Your task to perform on an android device: open app "NewsBreak: Local News & Alerts" Image 0: 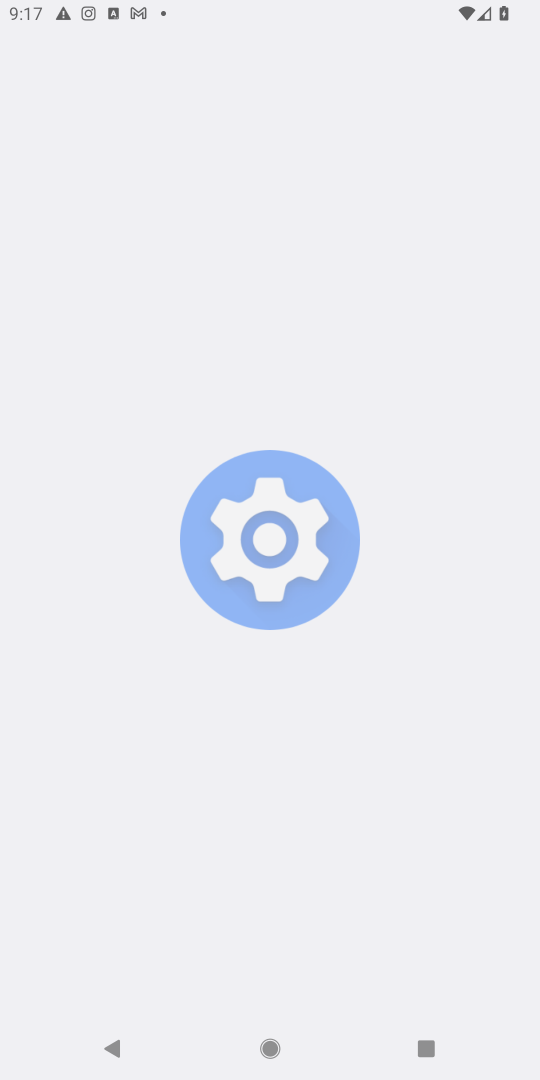
Step 0: press home button
Your task to perform on an android device: open app "NewsBreak: Local News & Alerts" Image 1: 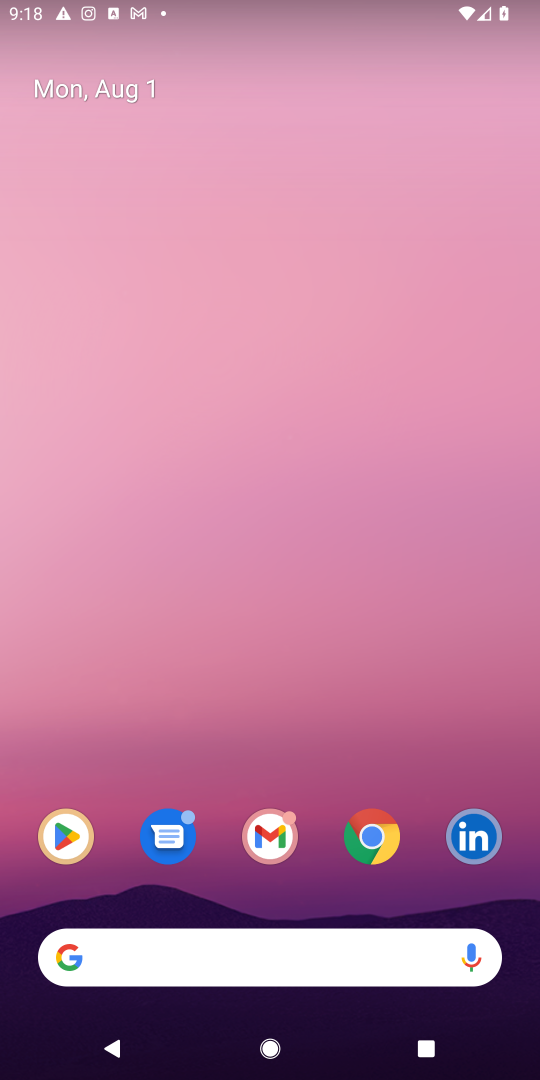
Step 1: click (66, 837)
Your task to perform on an android device: open app "NewsBreak: Local News & Alerts" Image 2: 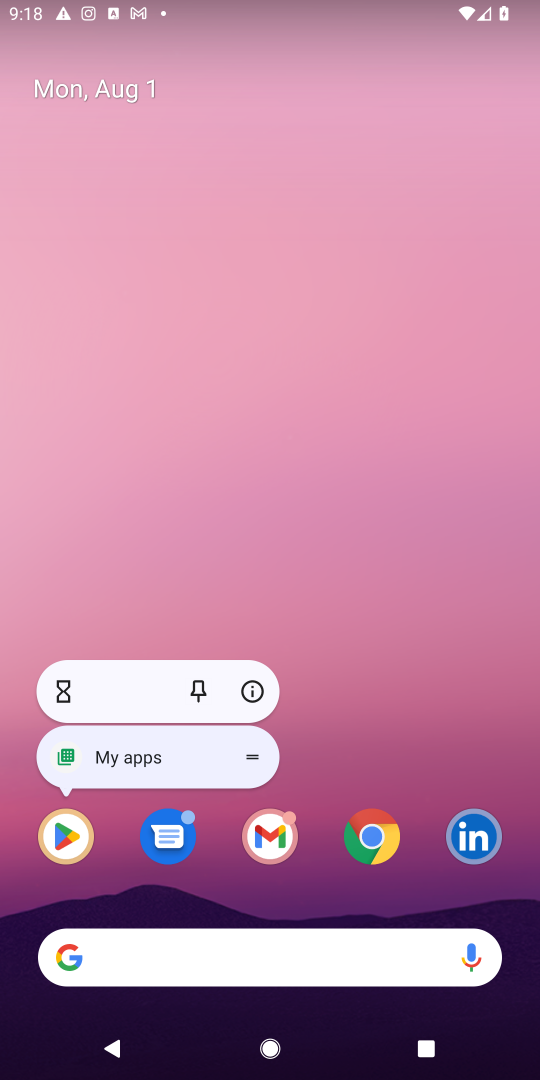
Step 2: click (66, 837)
Your task to perform on an android device: open app "NewsBreak: Local News & Alerts" Image 3: 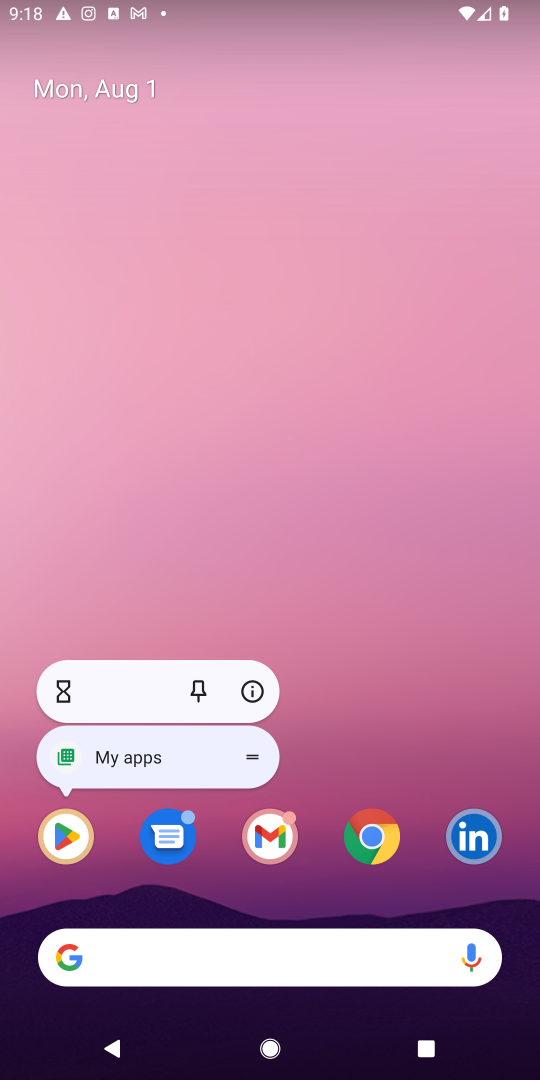
Step 3: click (66, 837)
Your task to perform on an android device: open app "NewsBreak: Local News & Alerts" Image 4: 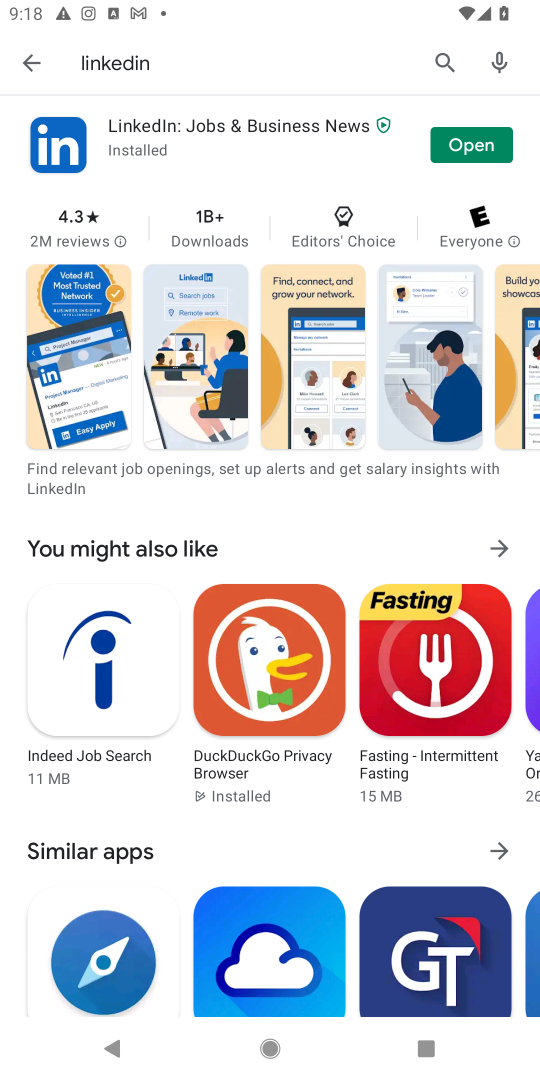
Step 4: click (446, 58)
Your task to perform on an android device: open app "NewsBreak: Local News & Alerts" Image 5: 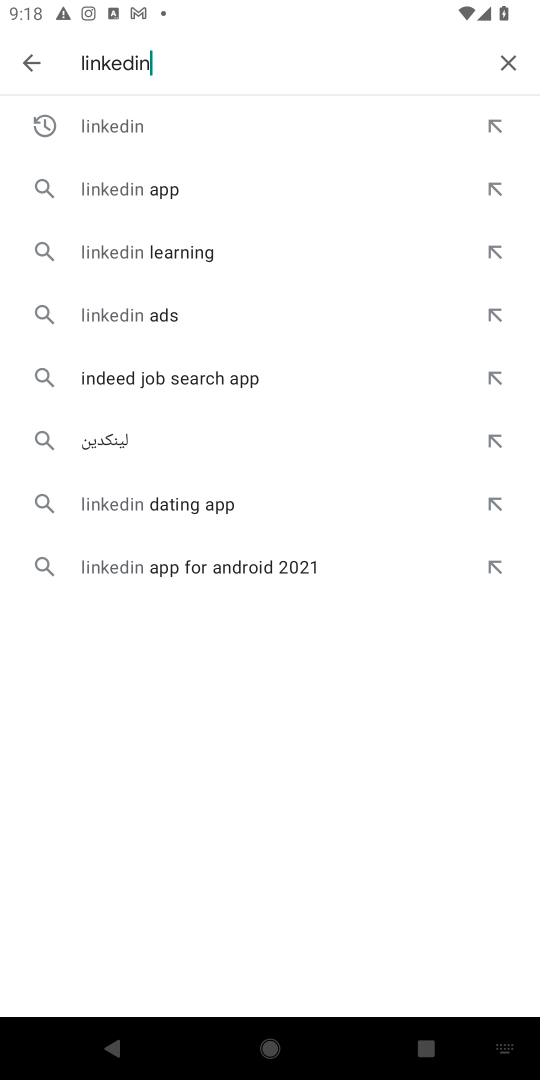
Step 5: click (502, 58)
Your task to perform on an android device: open app "NewsBreak: Local News & Alerts" Image 6: 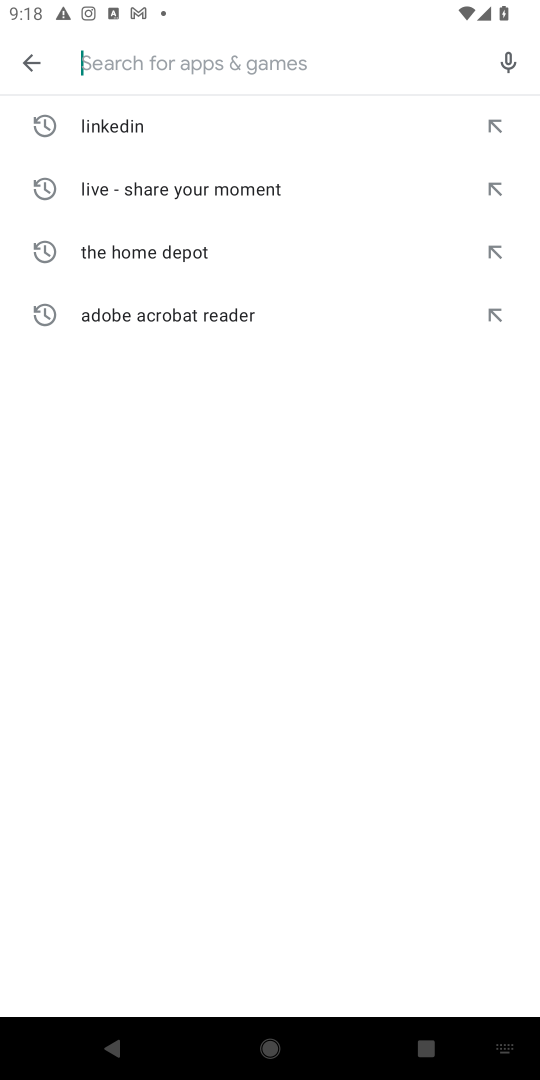
Step 6: type "NewsBreak: Local News & Alerts"
Your task to perform on an android device: open app "NewsBreak: Local News & Alerts" Image 7: 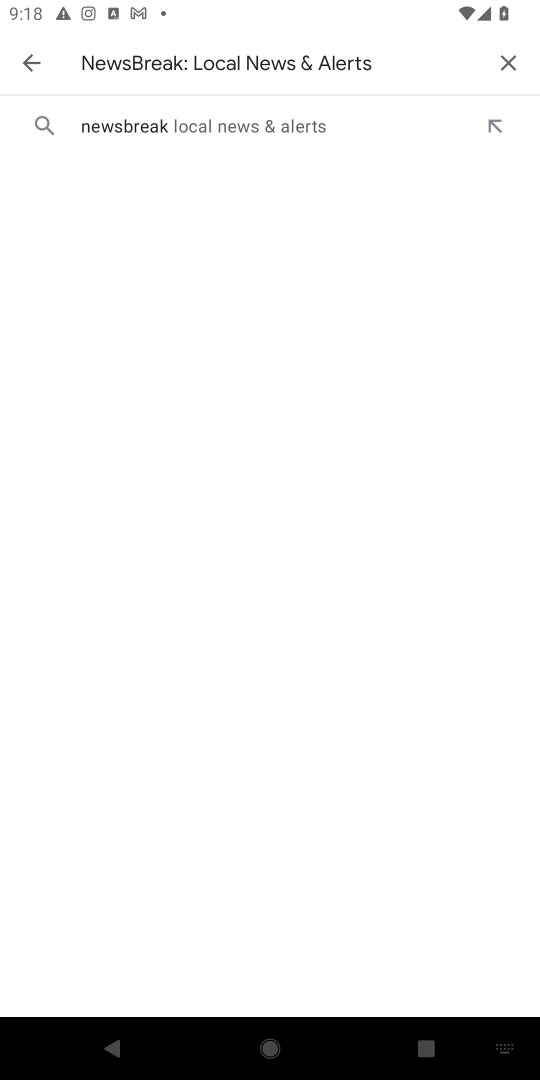
Step 7: click (196, 128)
Your task to perform on an android device: open app "NewsBreak: Local News & Alerts" Image 8: 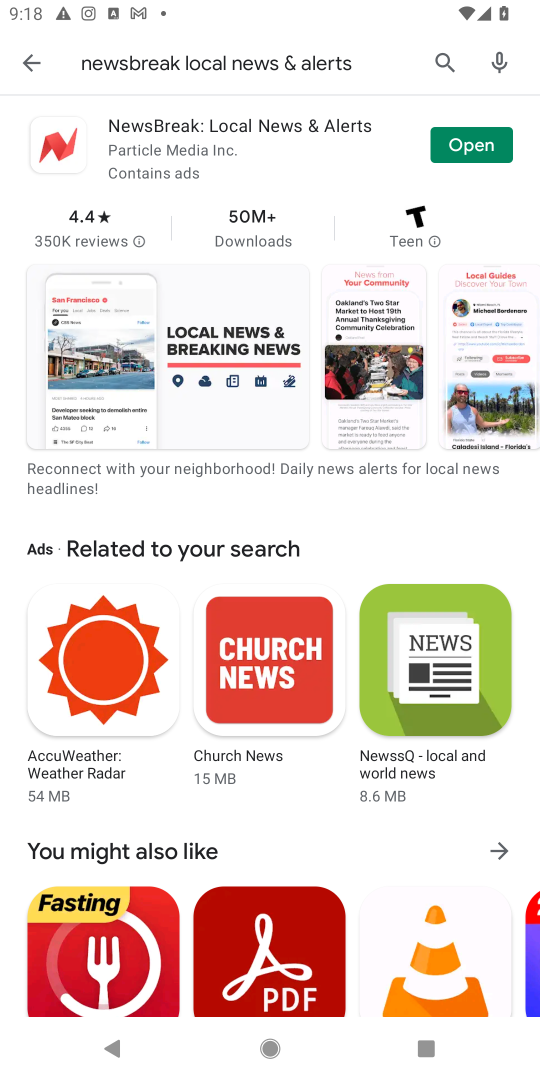
Step 8: click (452, 142)
Your task to perform on an android device: open app "NewsBreak: Local News & Alerts" Image 9: 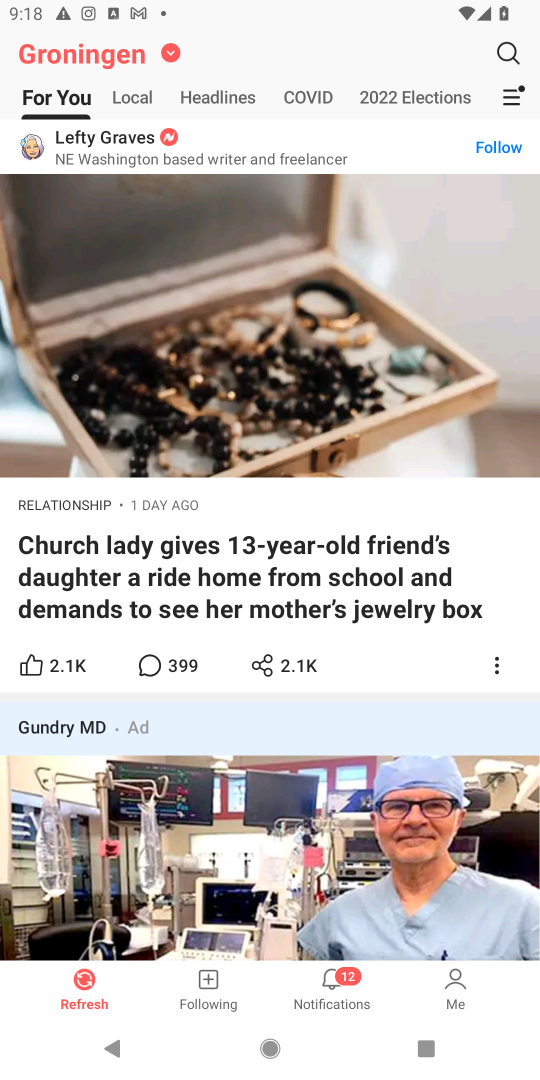
Step 9: task complete